Your task to perform on an android device: Open Chrome and go to settings Image 0: 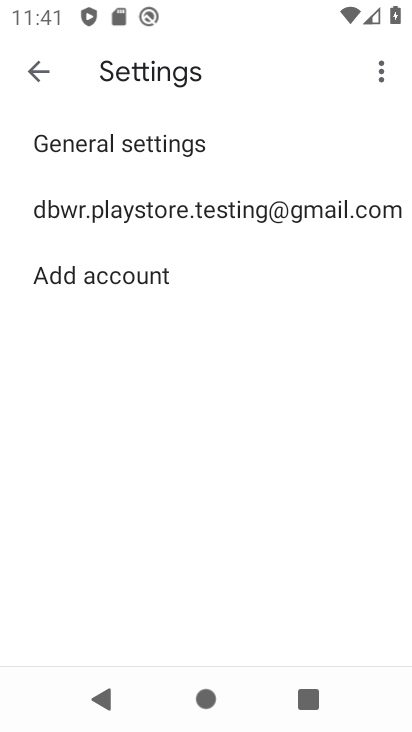
Step 0: drag from (315, 560) to (408, 445)
Your task to perform on an android device: Open Chrome and go to settings Image 1: 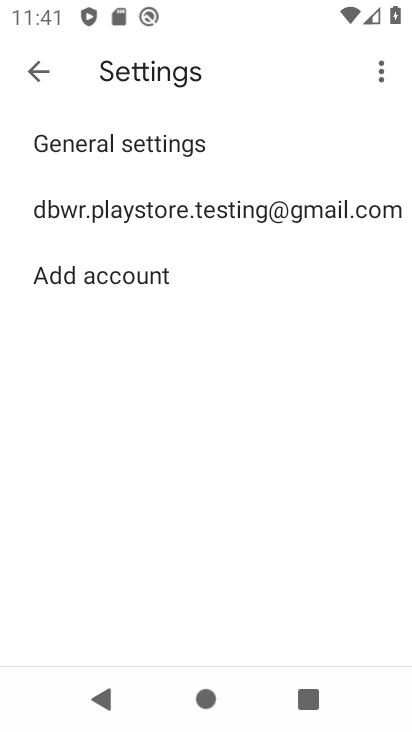
Step 1: press home button
Your task to perform on an android device: Open Chrome and go to settings Image 2: 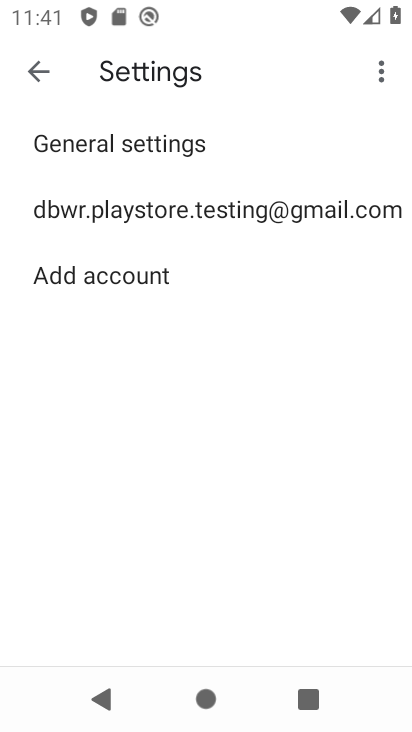
Step 2: click (410, 575)
Your task to perform on an android device: Open Chrome and go to settings Image 3: 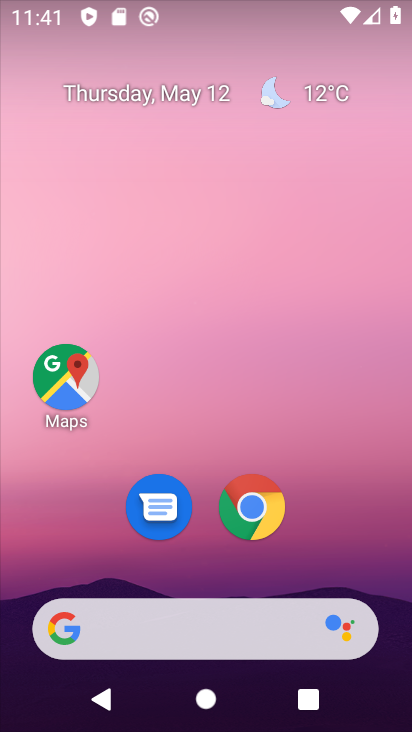
Step 3: click (244, 522)
Your task to perform on an android device: Open Chrome and go to settings Image 4: 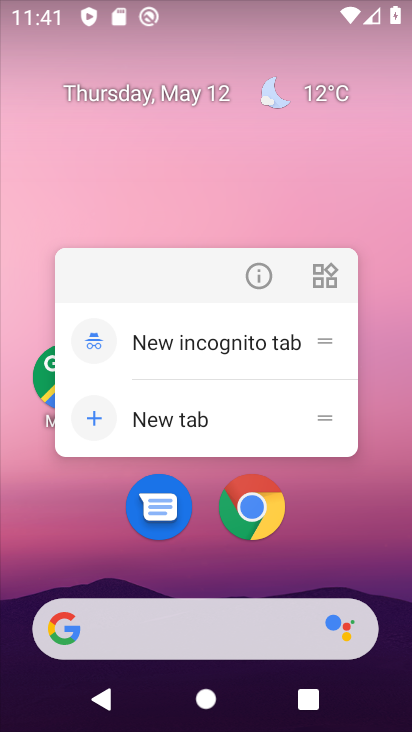
Step 4: click (245, 522)
Your task to perform on an android device: Open Chrome and go to settings Image 5: 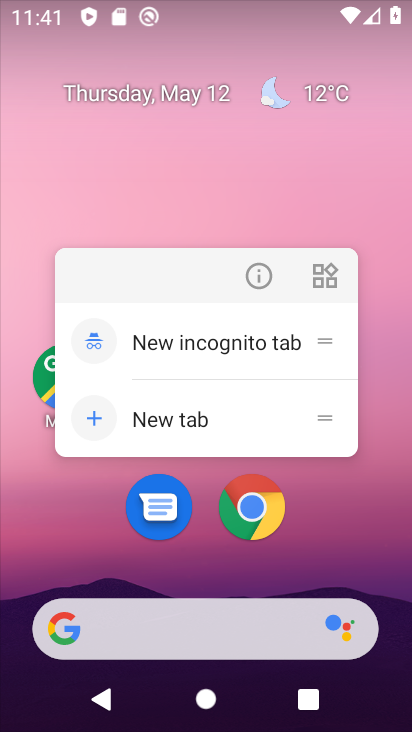
Step 5: click (263, 520)
Your task to perform on an android device: Open Chrome and go to settings Image 6: 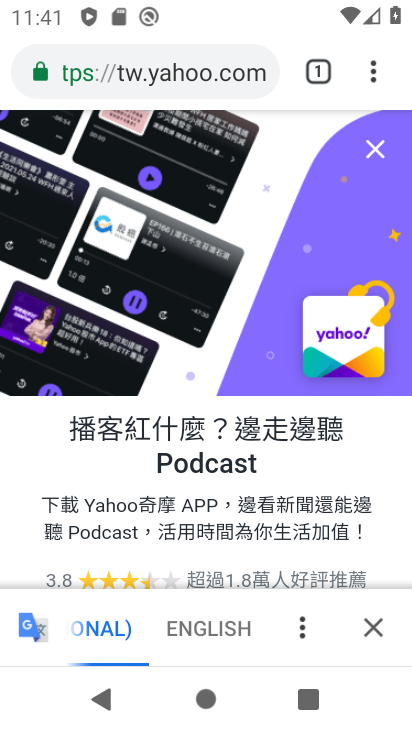
Step 6: task complete